Your task to perform on an android device: open app "Nova Launcher" (install if not already installed) Image 0: 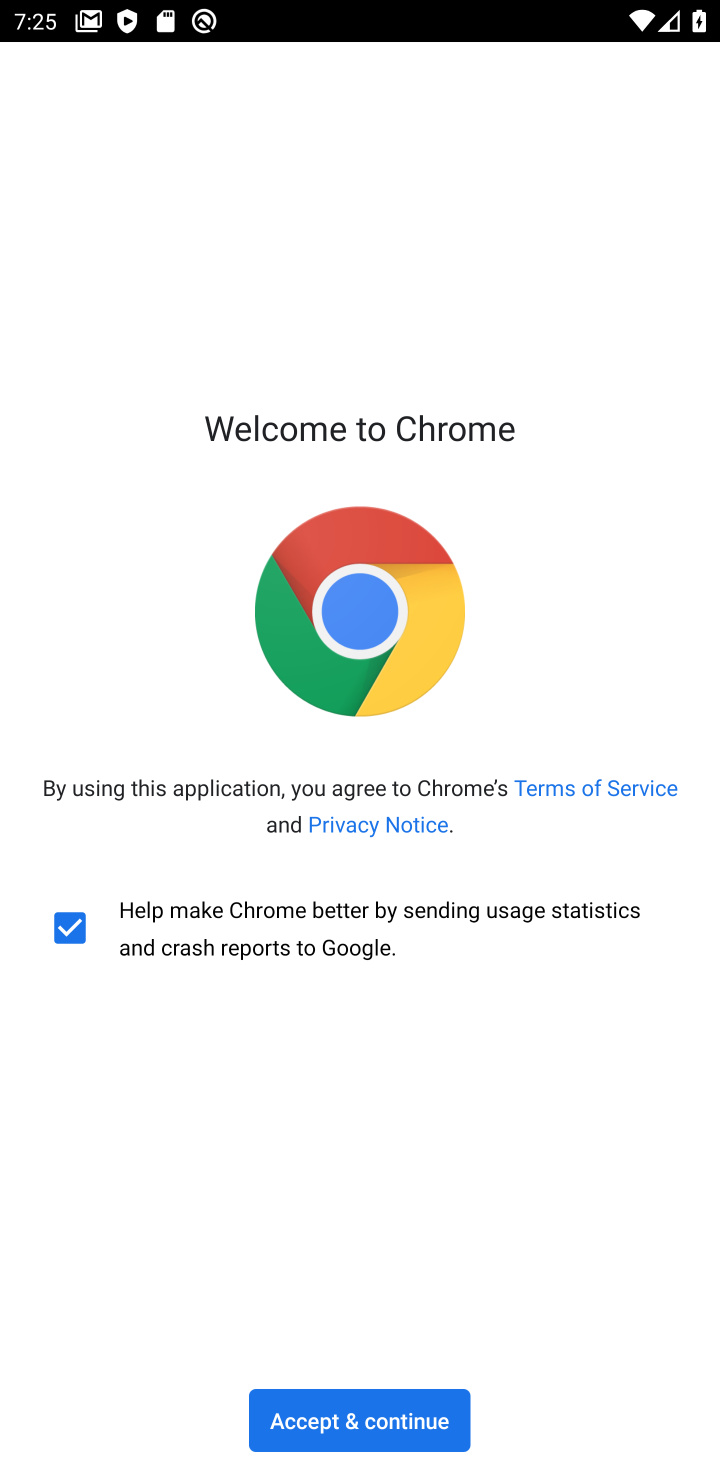
Step 0: press home button
Your task to perform on an android device: open app "Nova Launcher" (install if not already installed) Image 1: 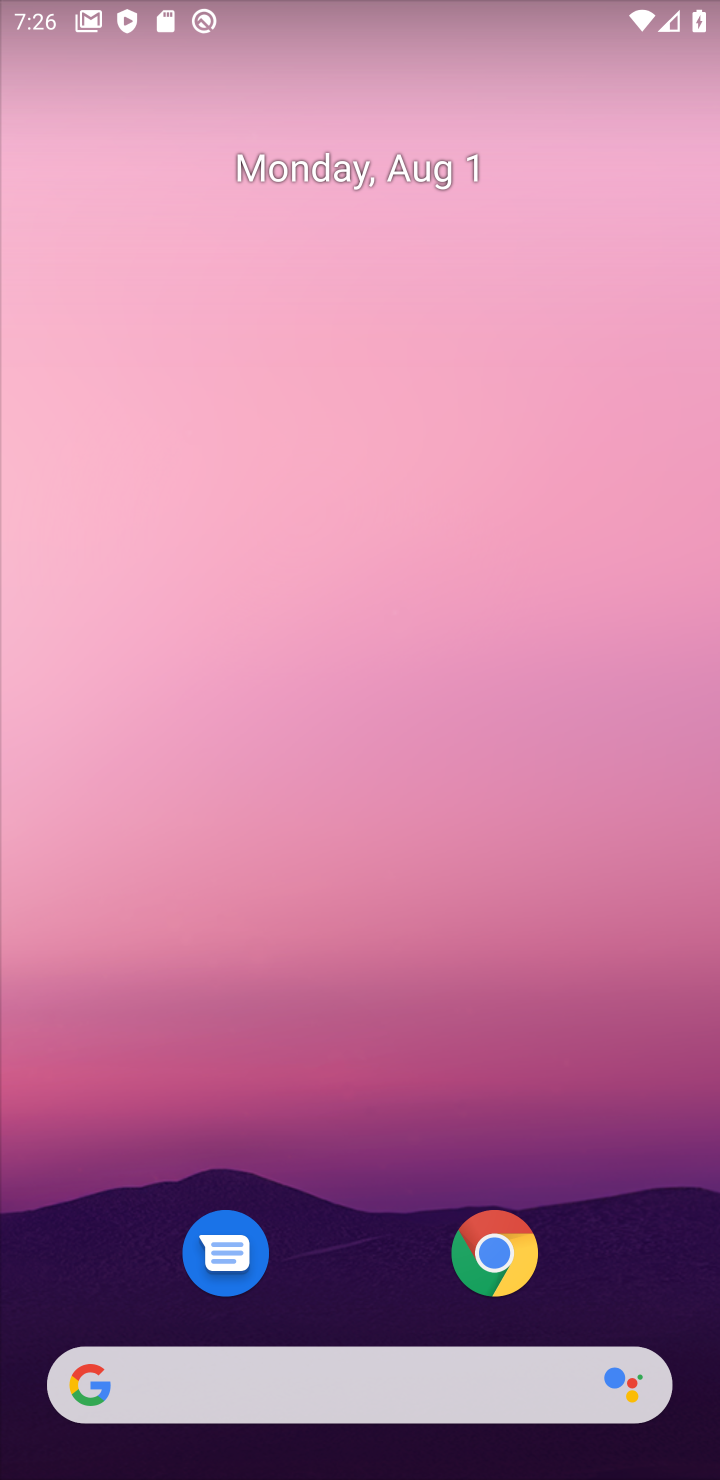
Step 1: drag from (300, 1176) to (562, 36)
Your task to perform on an android device: open app "Nova Launcher" (install if not already installed) Image 2: 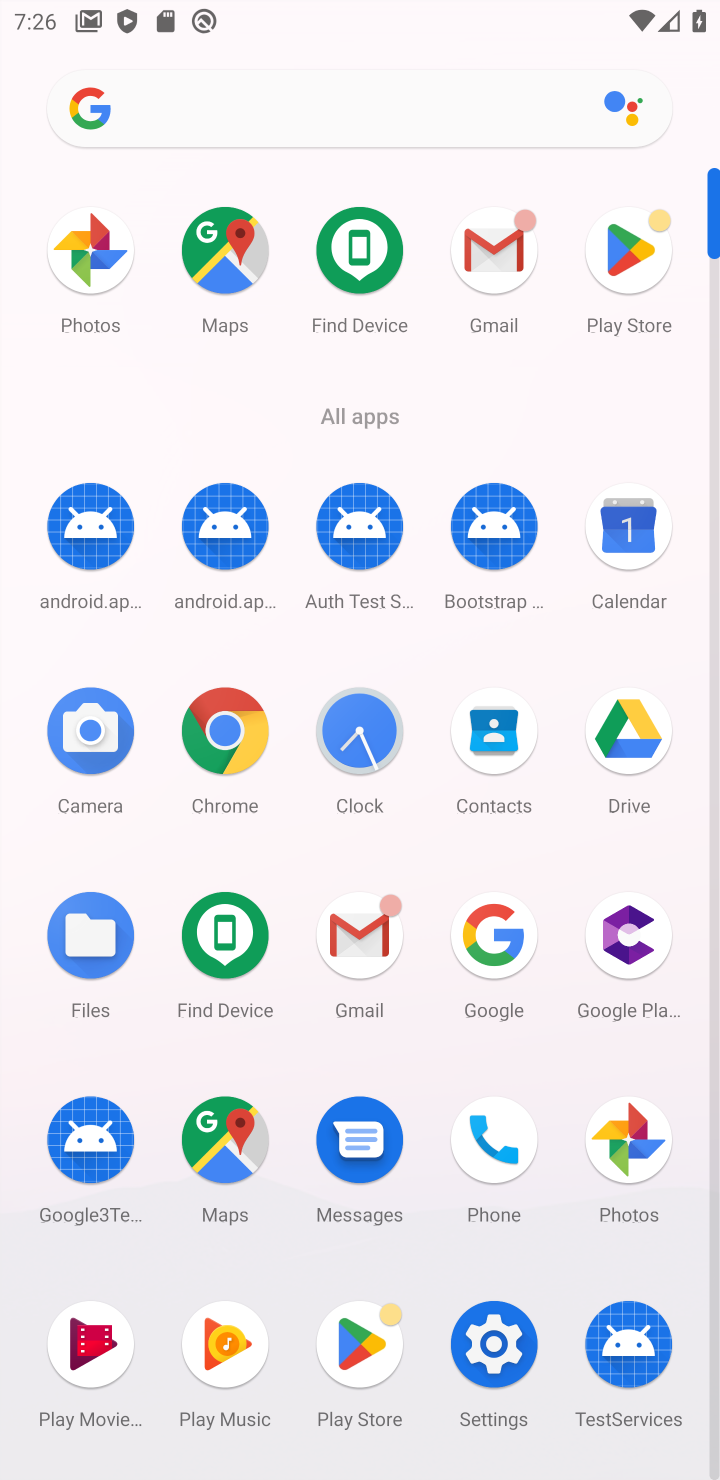
Step 2: click (626, 242)
Your task to perform on an android device: open app "Nova Launcher" (install if not already installed) Image 3: 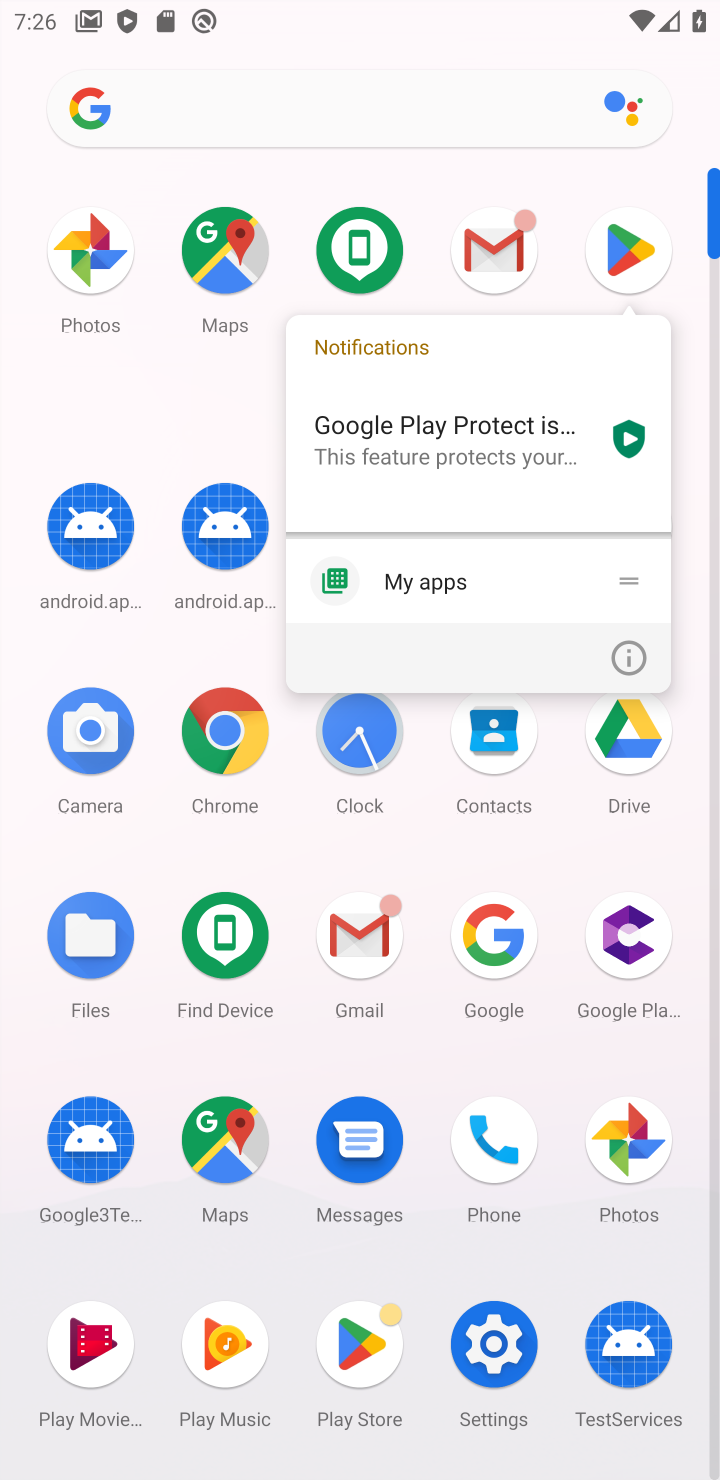
Step 3: click (654, 261)
Your task to perform on an android device: open app "Nova Launcher" (install if not already installed) Image 4: 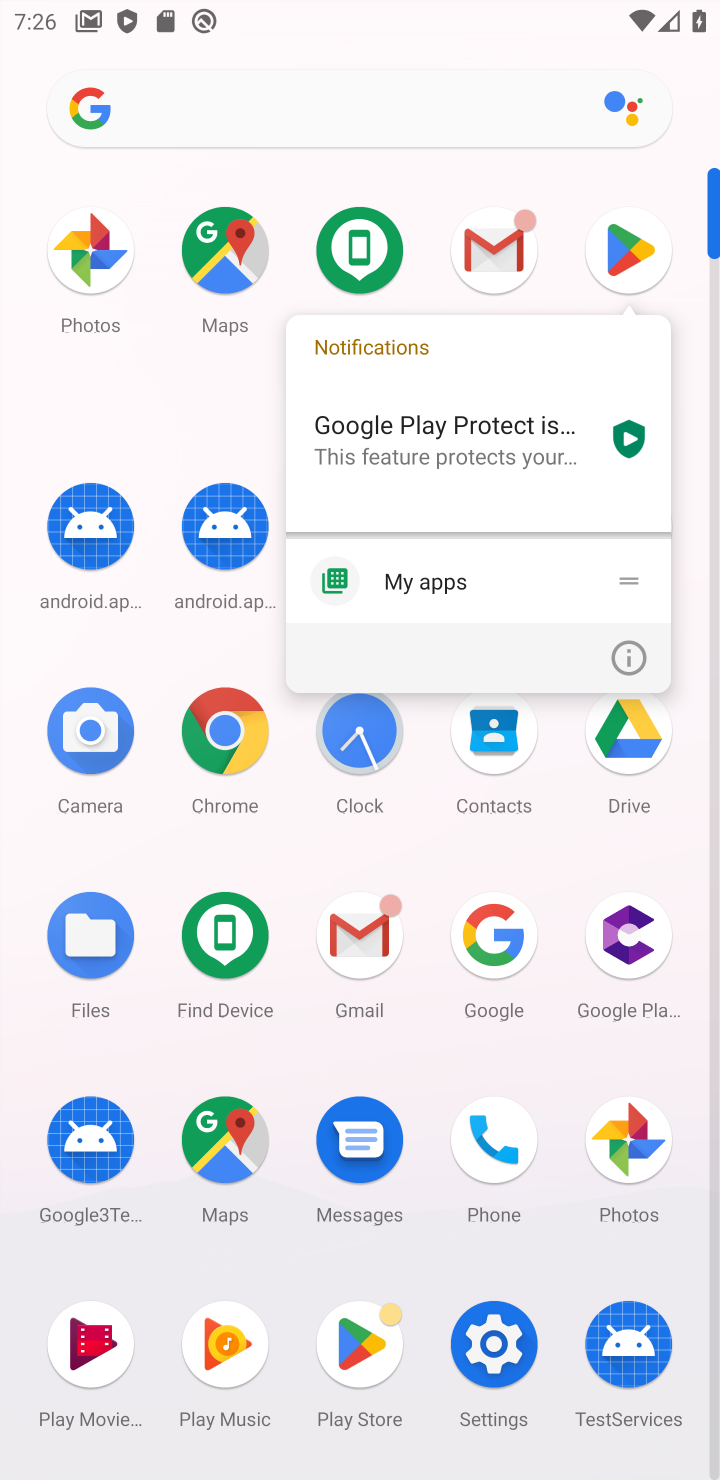
Step 4: click (654, 261)
Your task to perform on an android device: open app "Nova Launcher" (install if not already installed) Image 5: 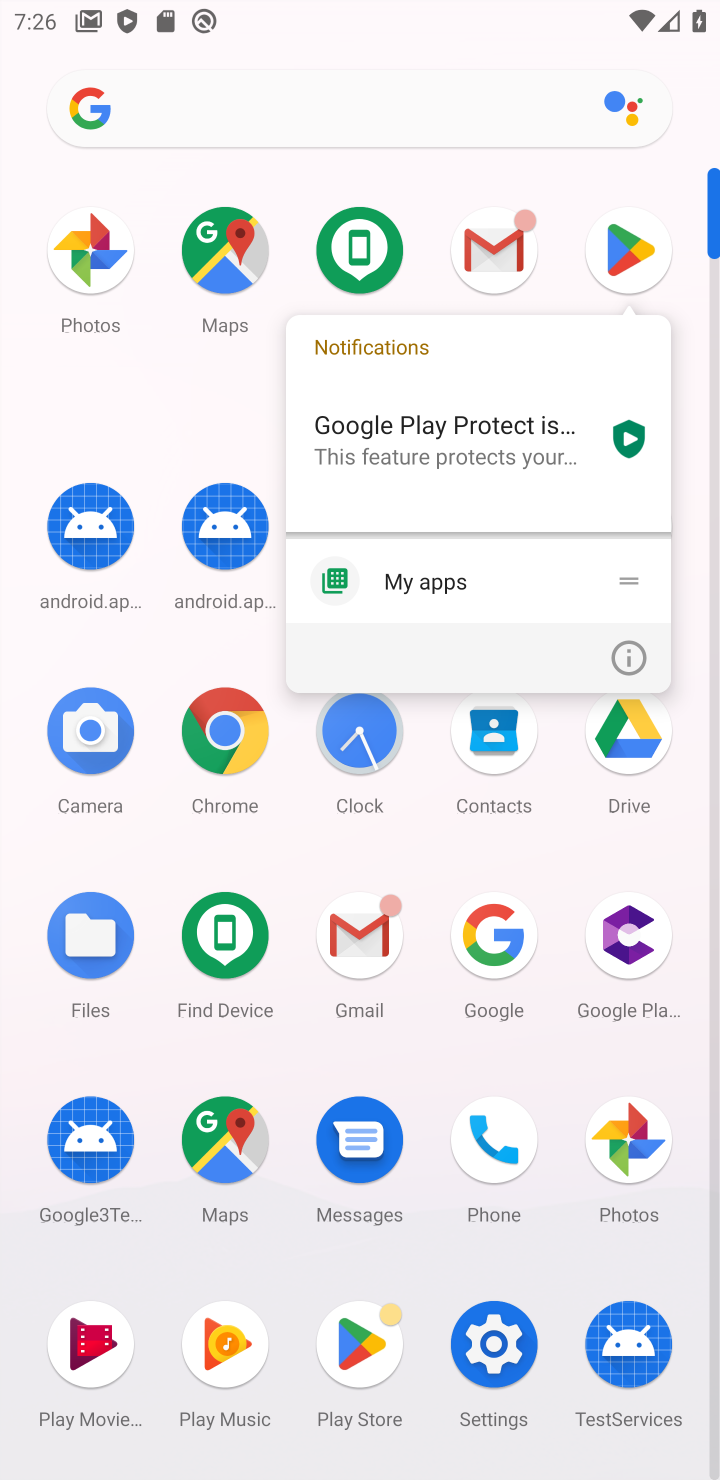
Step 5: click (654, 261)
Your task to perform on an android device: open app "Nova Launcher" (install if not already installed) Image 6: 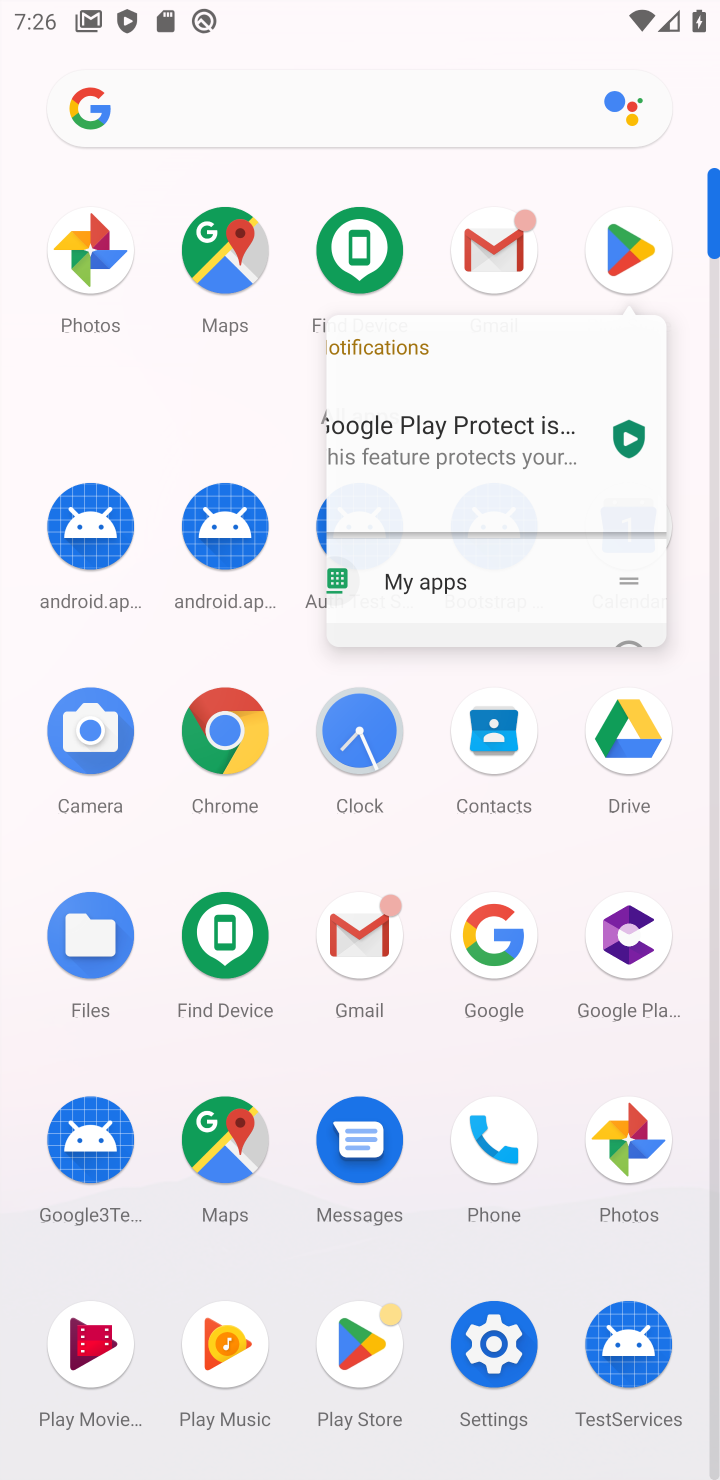
Step 6: click (619, 236)
Your task to perform on an android device: open app "Nova Launcher" (install if not already installed) Image 7: 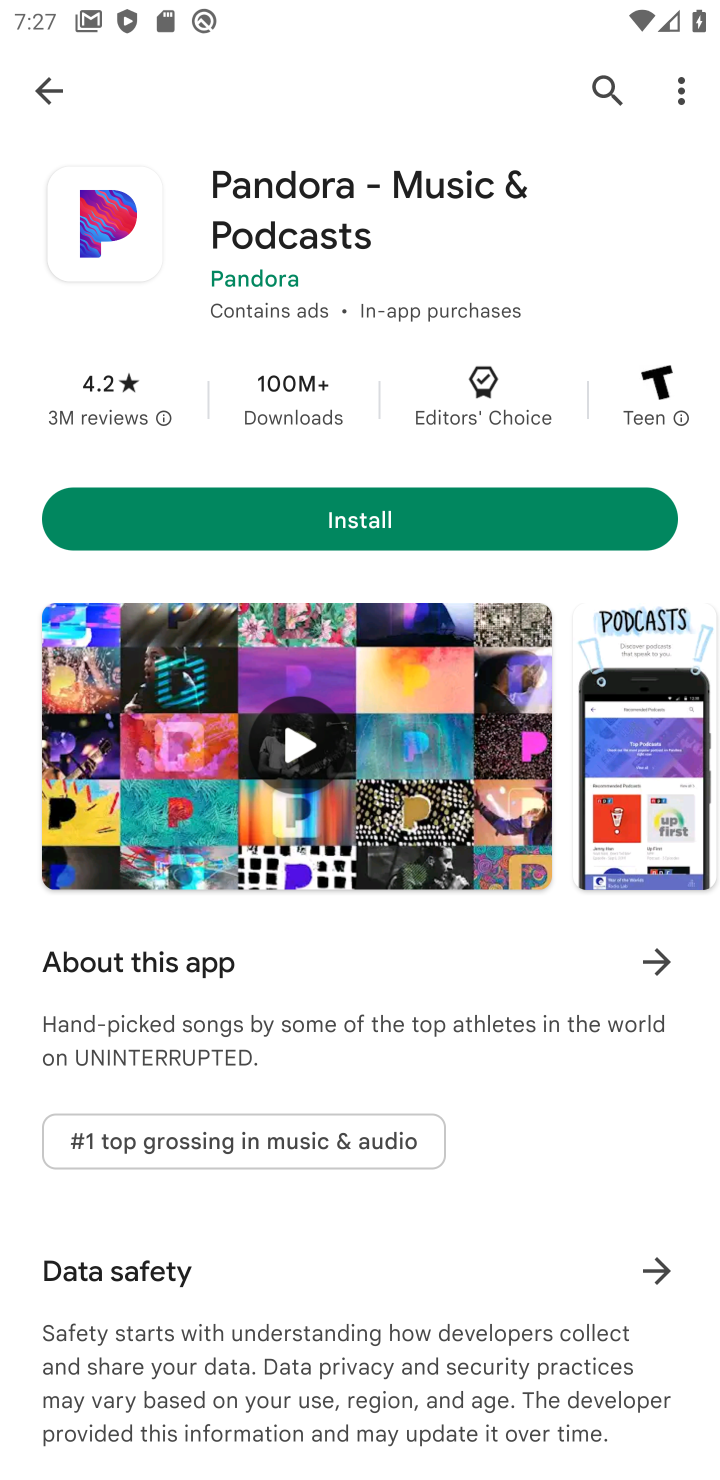
Step 7: click (586, 90)
Your task to perform on an android device: open app "Nova Launcher" (install if not already installed) Image 8: 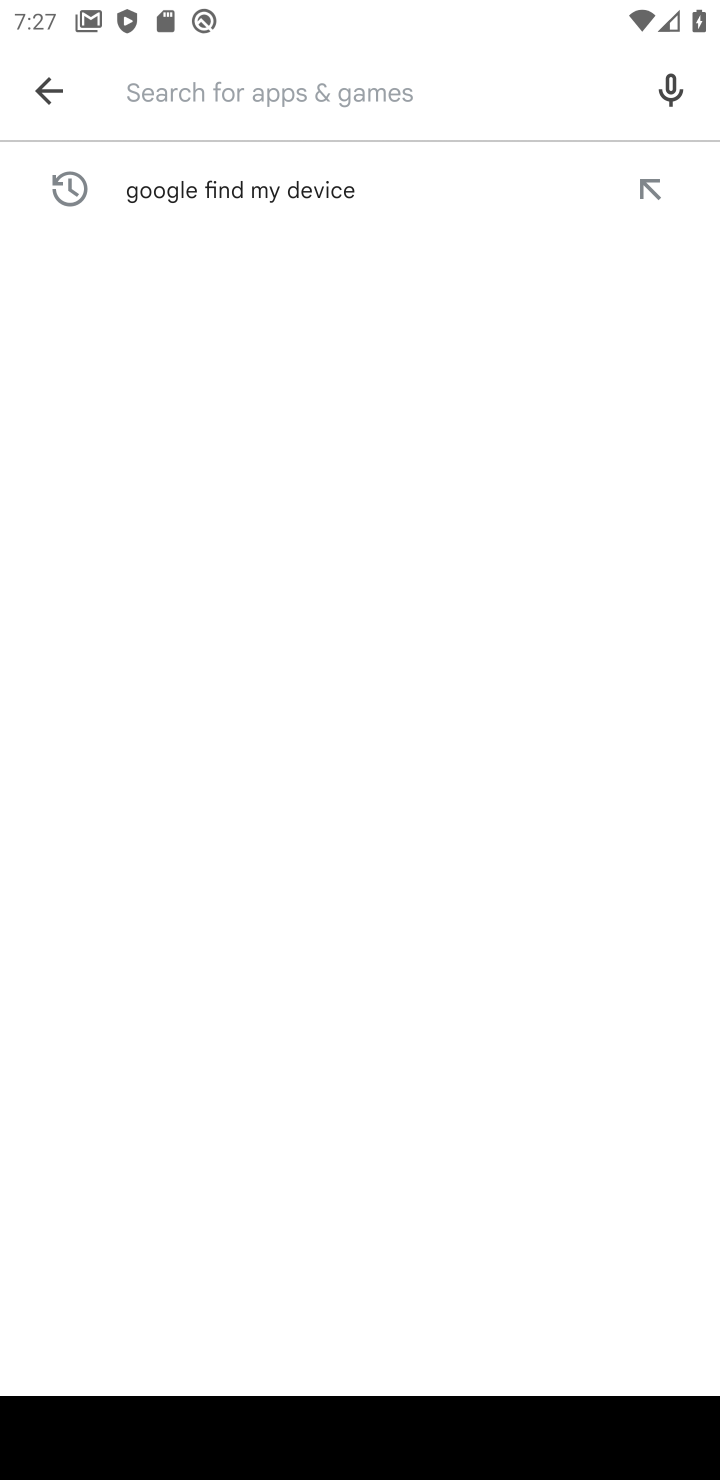
Step 8: type "Nova Launcher"
Your task to perform on an android device: open app "Nova Launcher" (install if not already installed) Image 9: 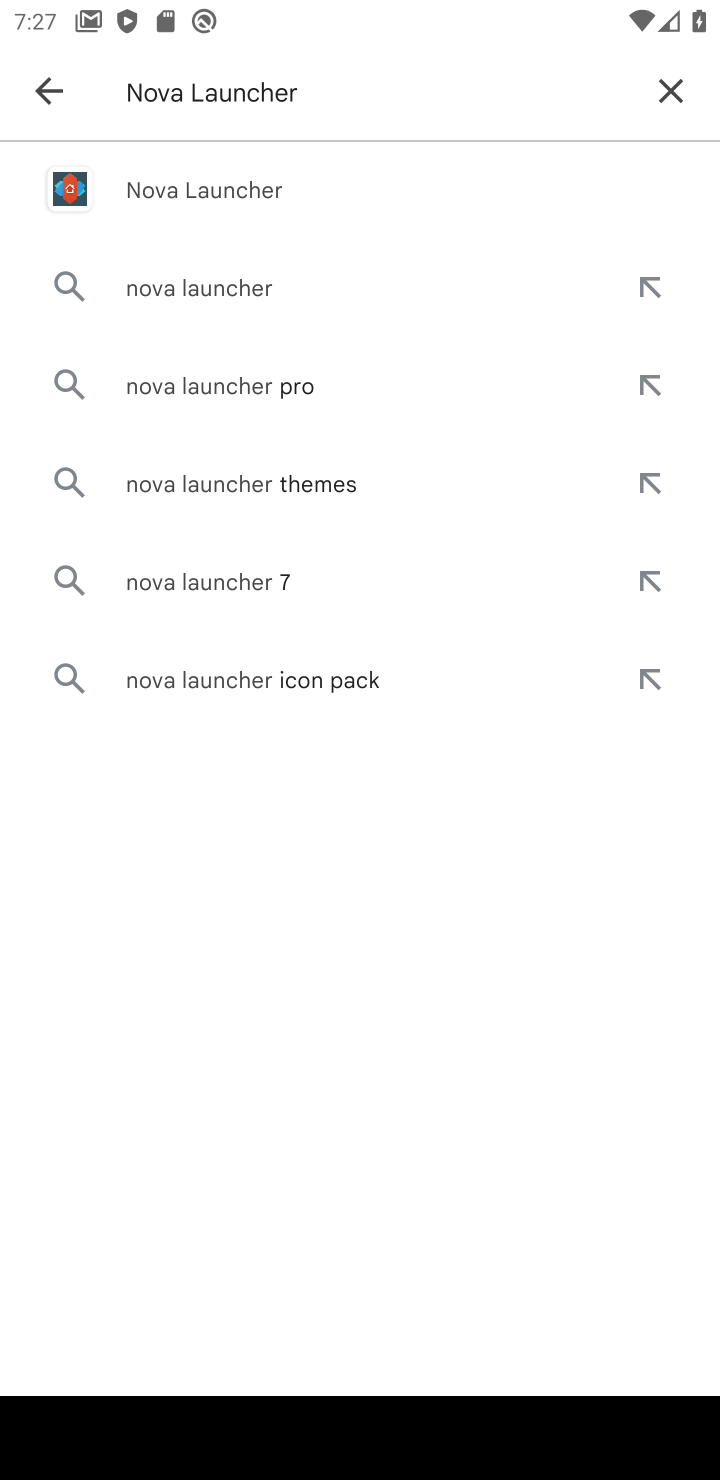
Step 9: click (355, 179)
Your task to perform on an android device: open app "Nova Launcher" (install if not already installed) Image 10: 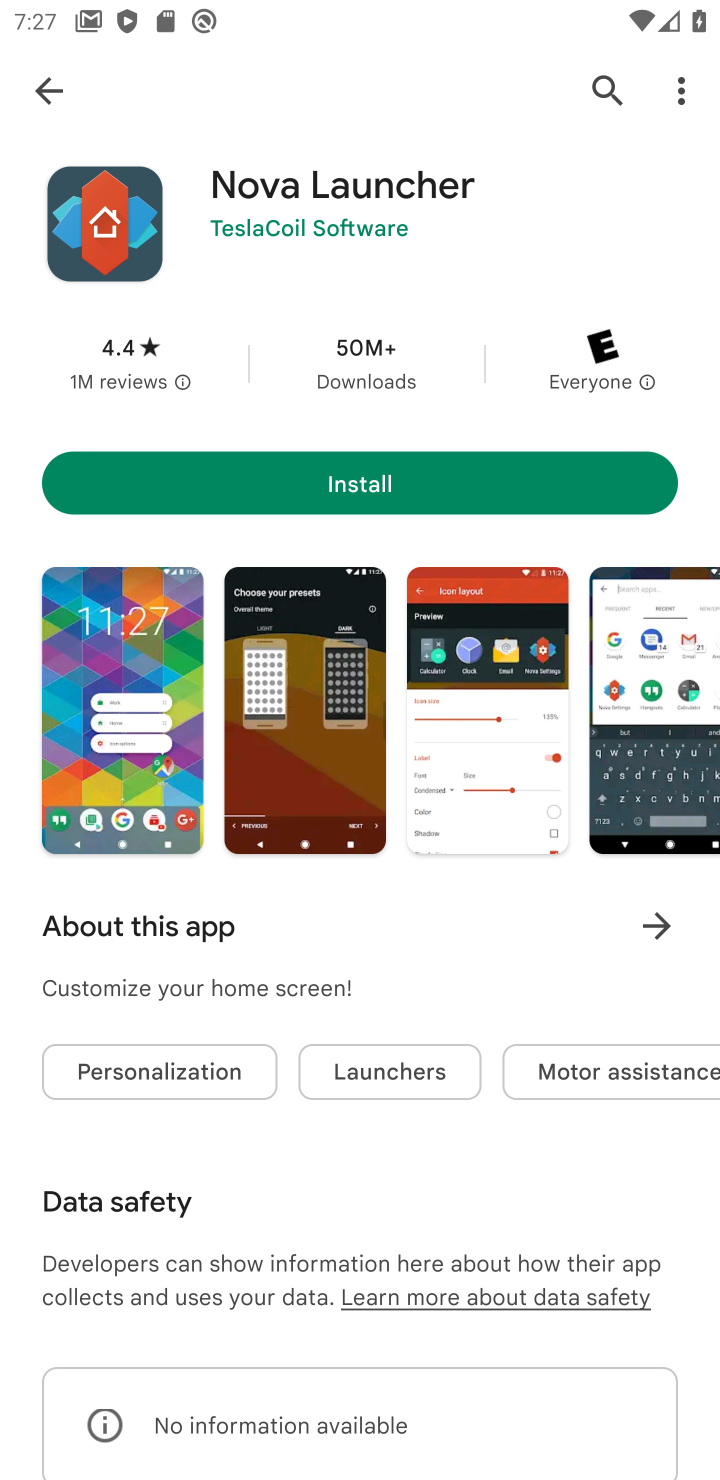
Step 10: task complete